Your task to perform on an android device: toggle sleep mode Image 0: 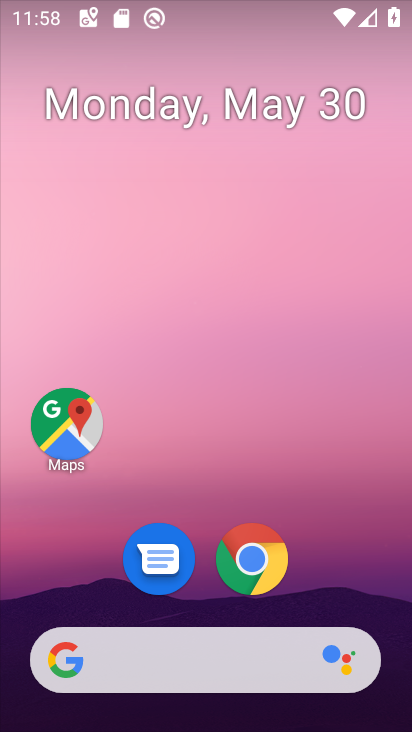
Step 0: drag from (344, 591) to (223, 140)
Your task to perform on an android device: toggle sleep mode Image 1: 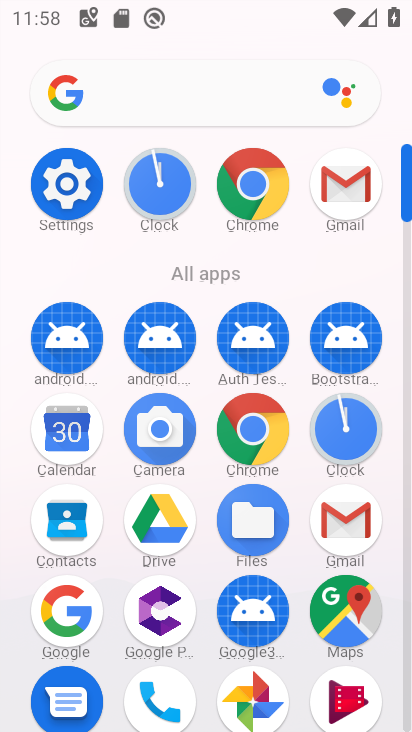
Step 1: click (69, 172)
Your task to perform on an android device: toggle sleep mode Image 2: 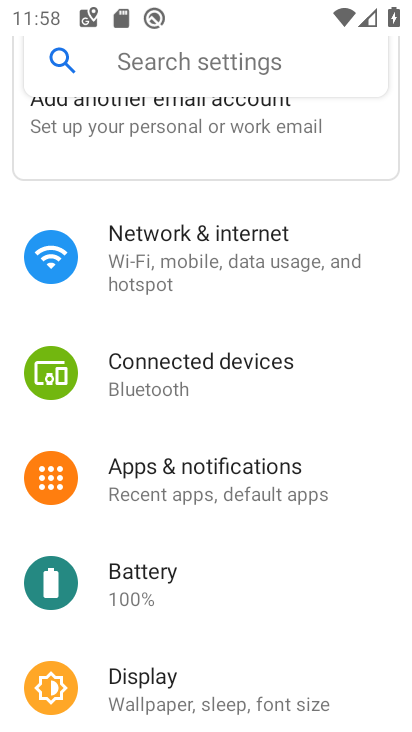
Step 2: click (200, 693)
Your task to perform on an android device: toggle sleep mode Image 3: 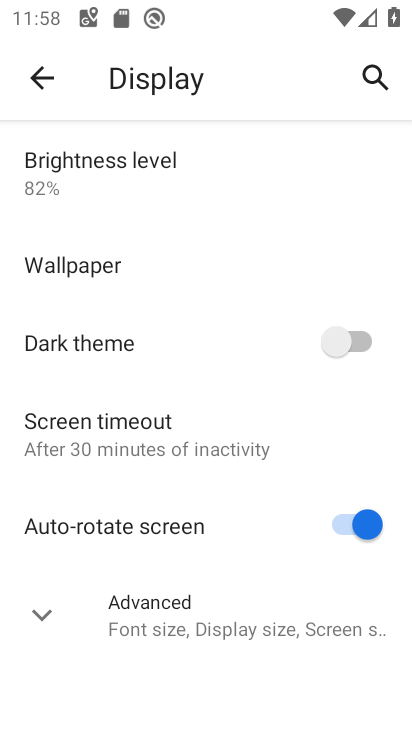
Step 3: drag from (209, 631) to (183, 354)
Your task to perform on an android device: toggle sleep mode Image 4: 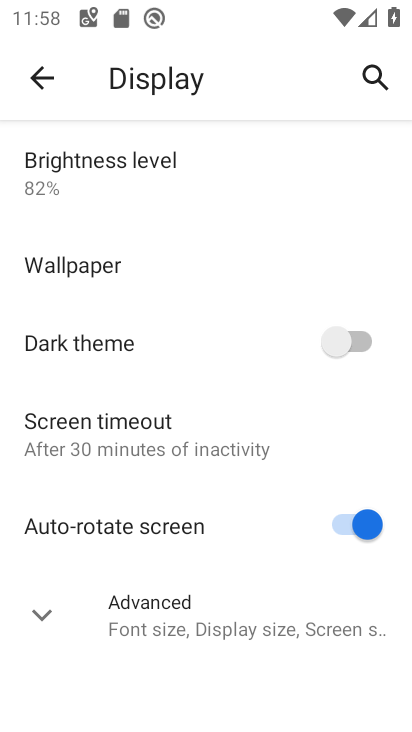
Step 4: click (239, 610)
Your task to perform on an android device: toggle sleep mode Image 5: 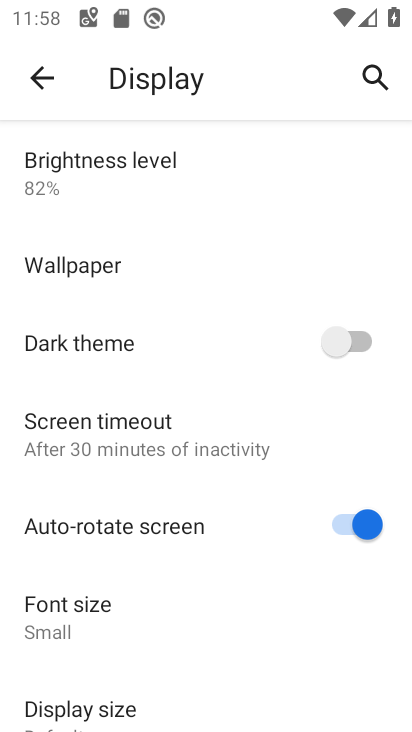
Step 5: task complete